Your task to perform on an android device: Toggle the flashlight Image 0: 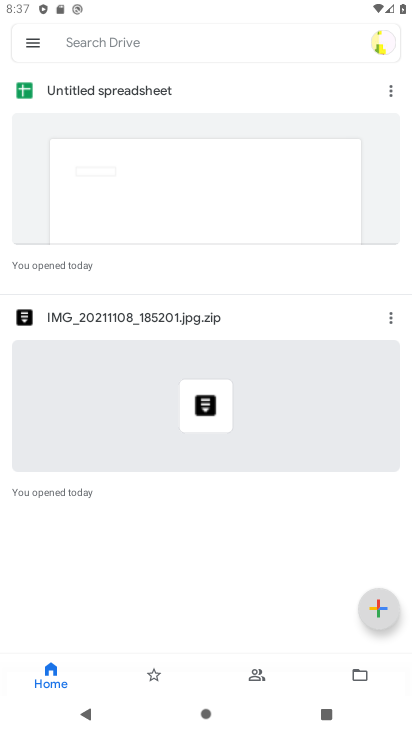
Step 0: drag from (326, 1) to (280, 725)
Your task to perform on an android device: Toggle the flashlight Image 1: 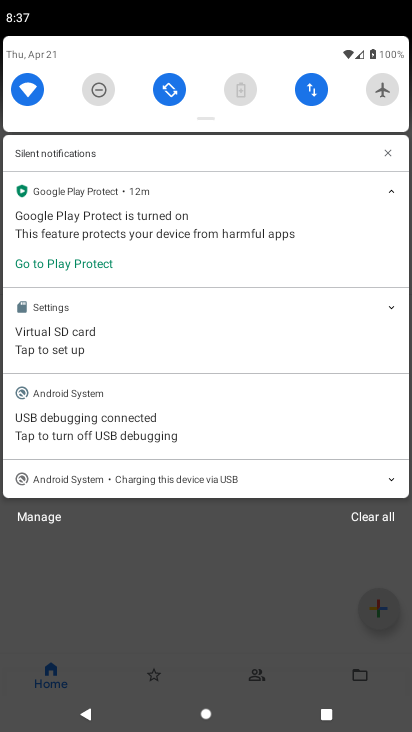
Step 1: drag from (209, 96) to (239, 461)
Your task to perform on an android device: Toggle the flashlight Image 2: 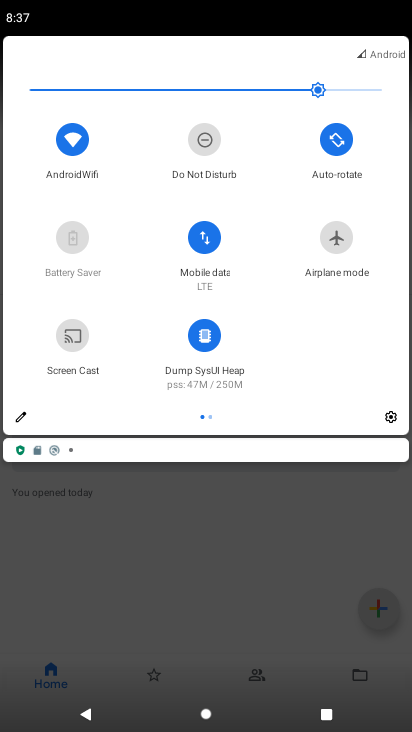
Step 2: drag from (385, 314) to (62, 302)
Your task to perform on an android device: Toggle the flashlight Image 3: 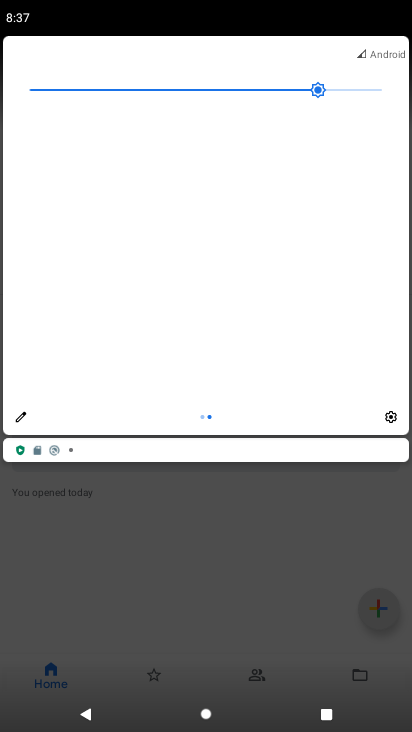
Step 3: click (18, 423)
Your task to perform on an android device: Toggle the flashlight Image 4: 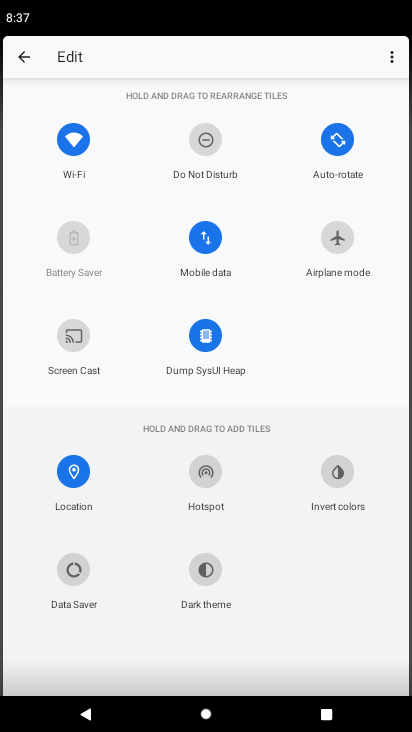
Step 4: task complete